Your task to perform on an android device: add a contact in the contacts app Image 0: 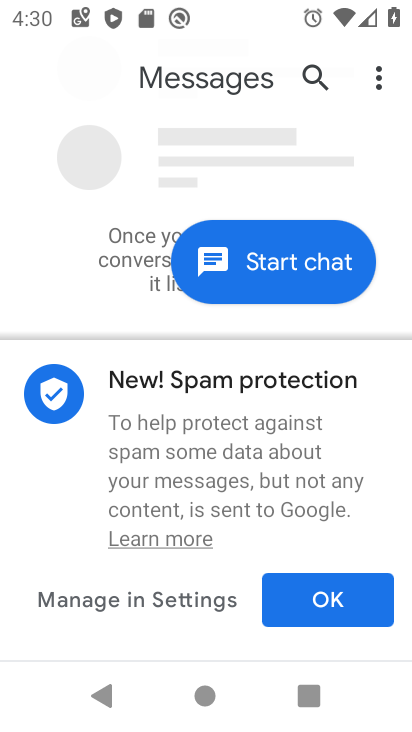
Step 0: press home button
Your task to perform on an android device: add a contact in the contacts app Image 1: 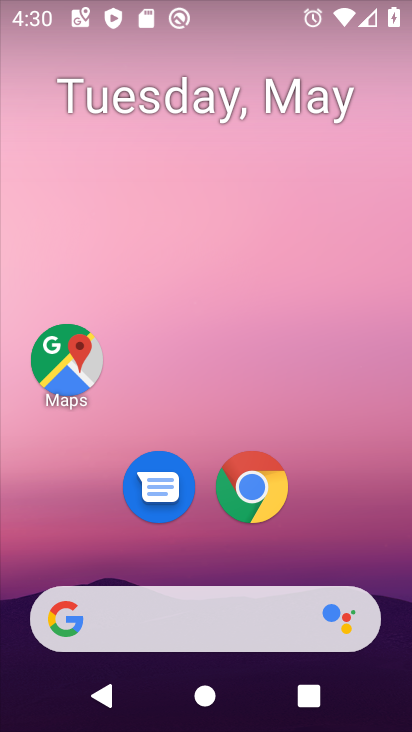
Step 1: drag from (306, 530) to (377, 21)
Your task to perform on an android device: add a contact in the contacts app Image 2: 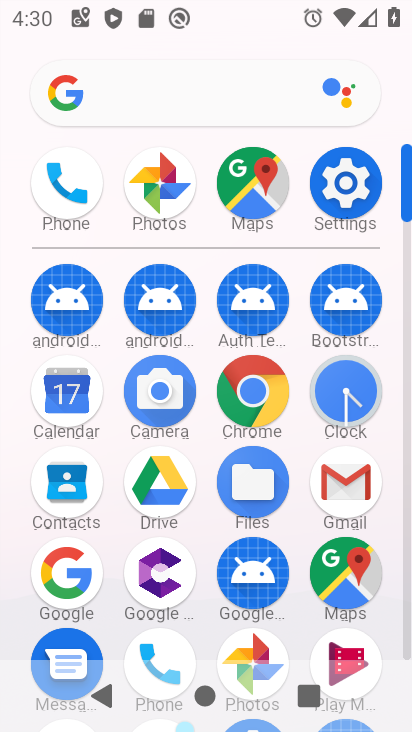
Step 2: click (72, 477)
Your task to perform on an android device: add a contact in the contacts app Image 3: 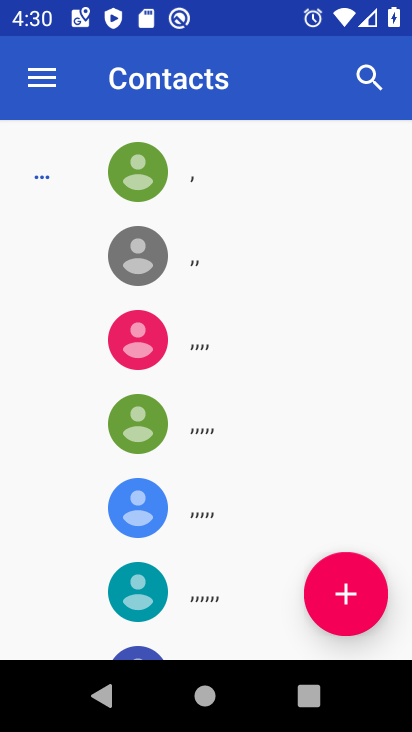
Step 3: click (313, 591)
Your task to perform on an android device: add a contact in the contacts app Image 4: 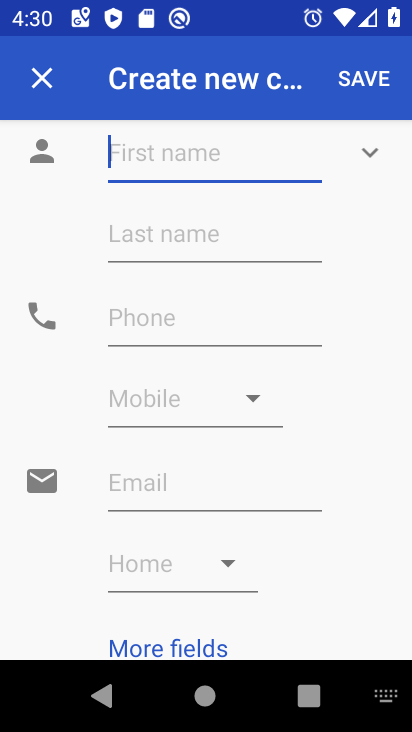
Step 4: type "vfx"
Your task to perform on an android device: add a contact in the contacts app Image 5: 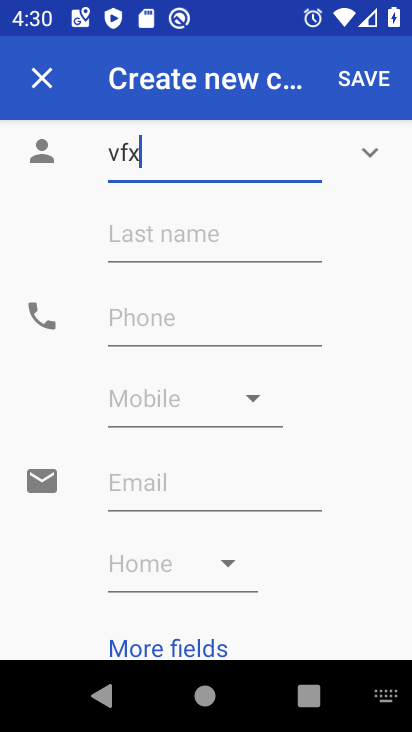
Step 5: type ""
Your task to perform on an android device: add a contact in the contacts app Image 6: 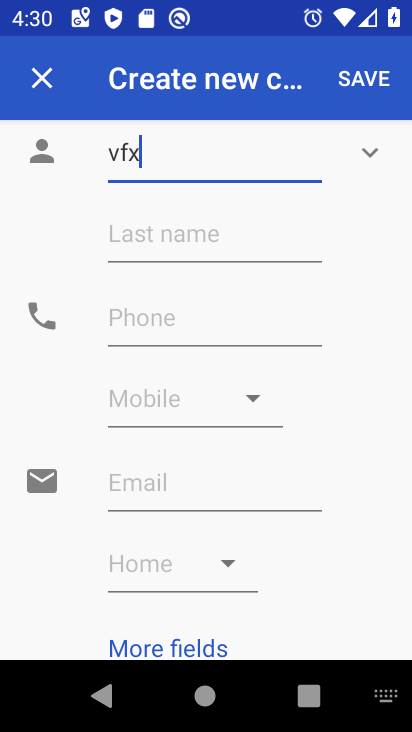
Step 6: click (369, 78)
Your task to perform on an android device: add a contact in the contacts app Image 7: 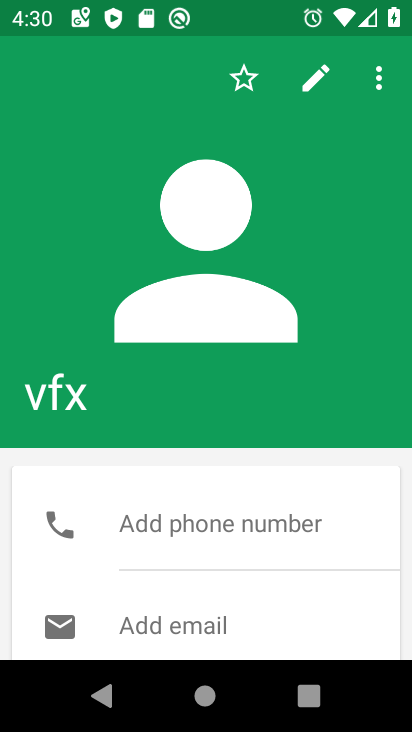
Step 7: task complete